Your task to perform on an android device: Open Google Image 0: 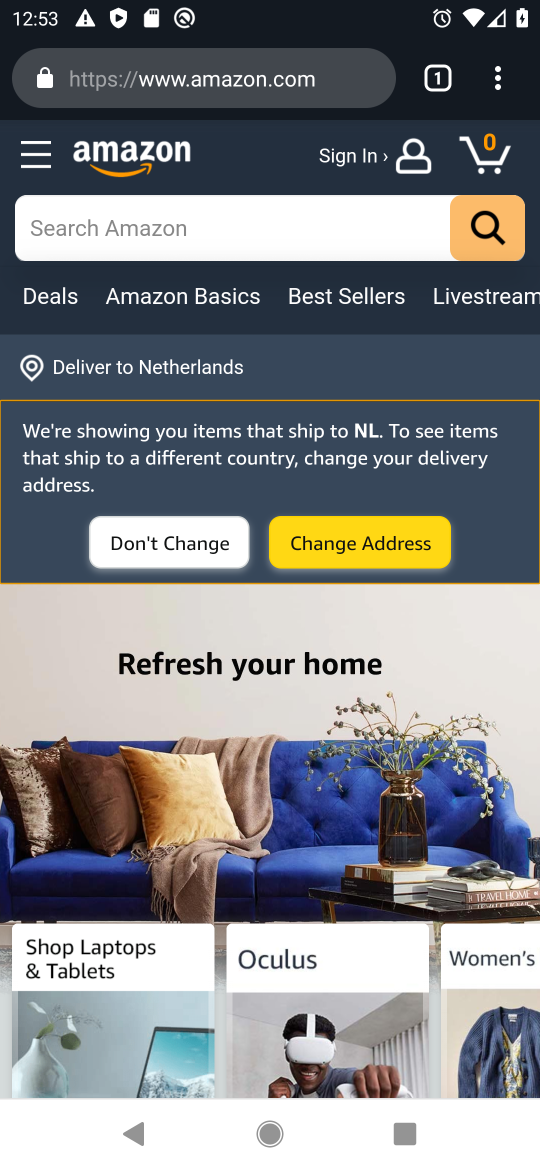
Step 0: click (254, 58)
Your task to perform on an android device: Open Google Image 1: 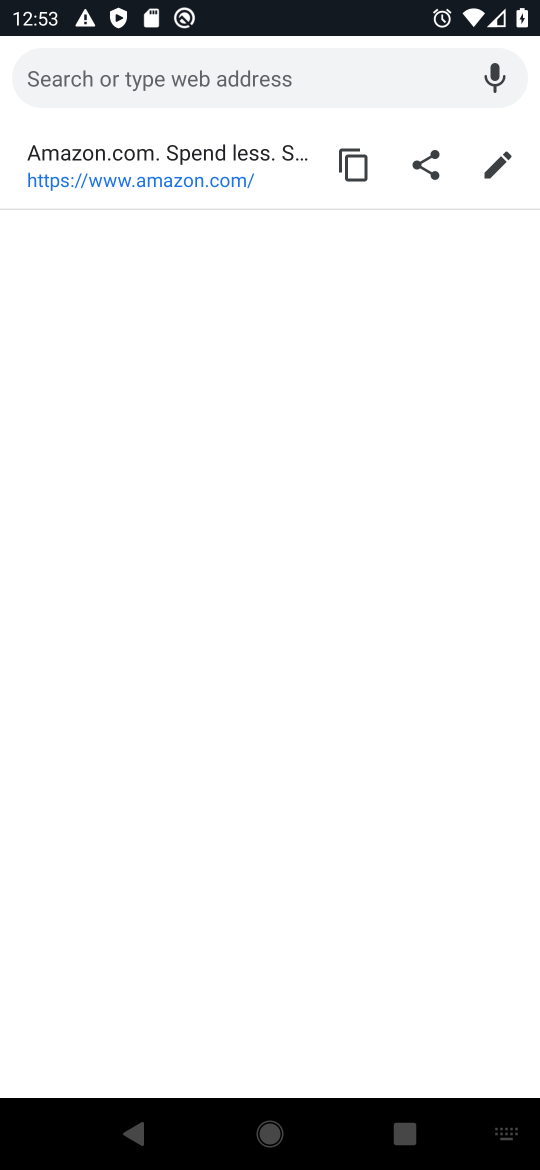
Step 1: type "google .com"
Your task to perform on an android device: Open Google Image 2: 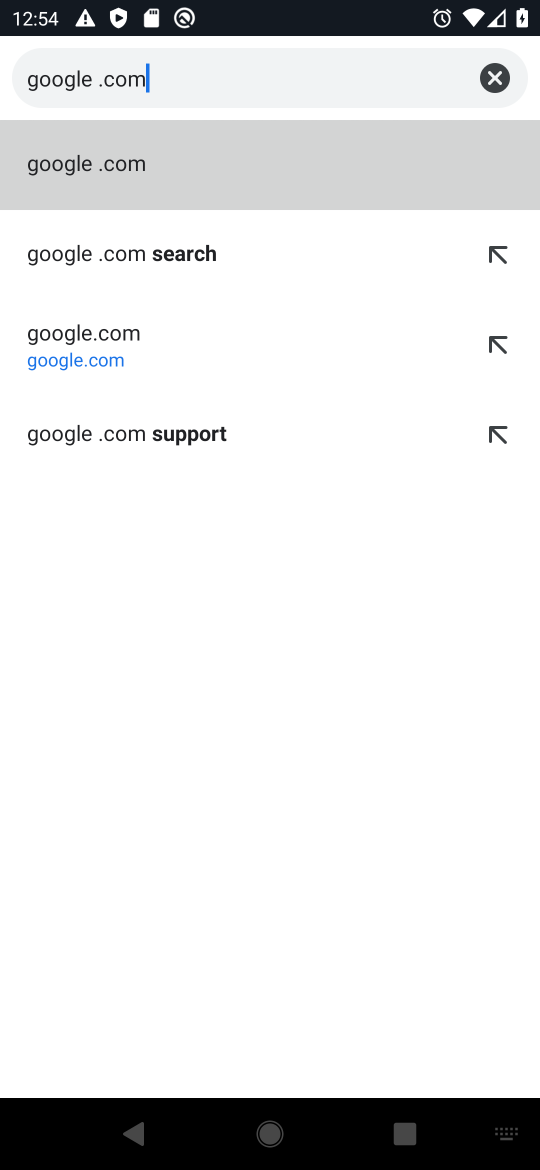
Step 2: click (75, 184)
Your task to perform on an android device: Open Google Image 3: 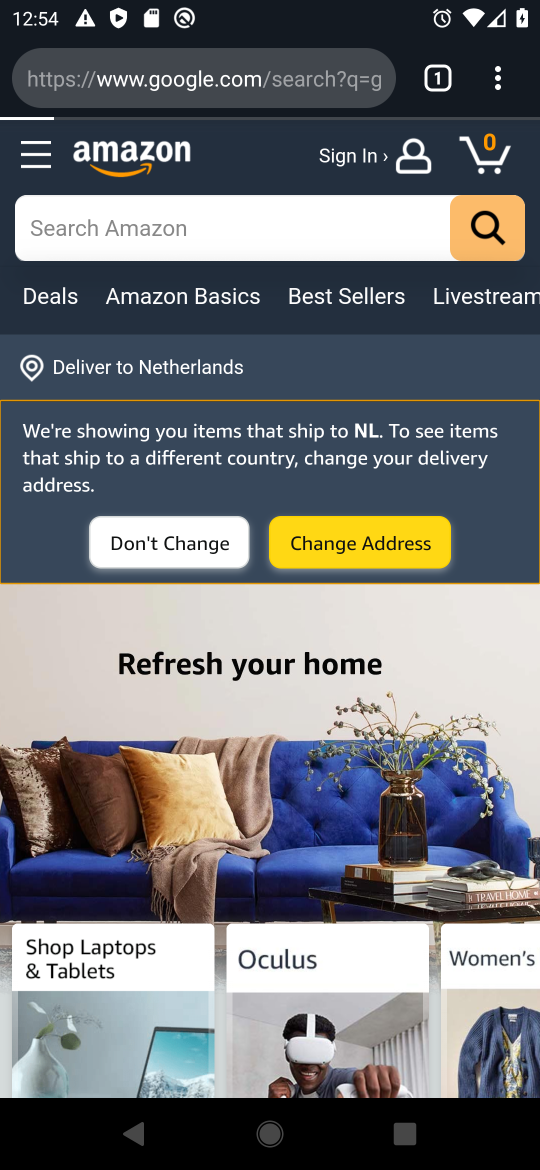
Step 3: task complete